Your task to perform on an android device: set an alarm Image 0: 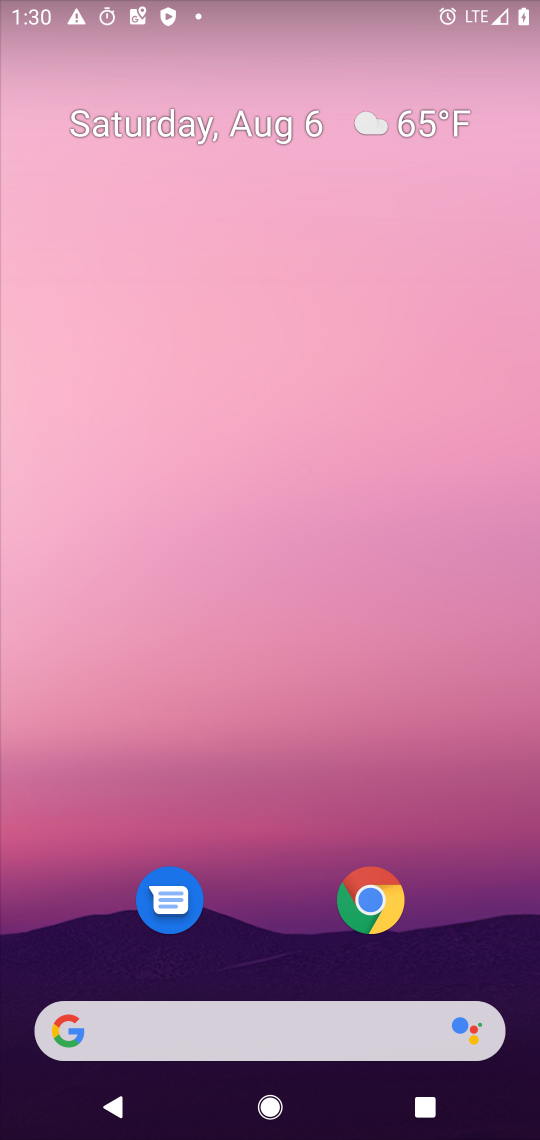
Step 0: drag from (246, 960) to (252, 59)
Your task to perform on an android device: set an alarm Image 1: 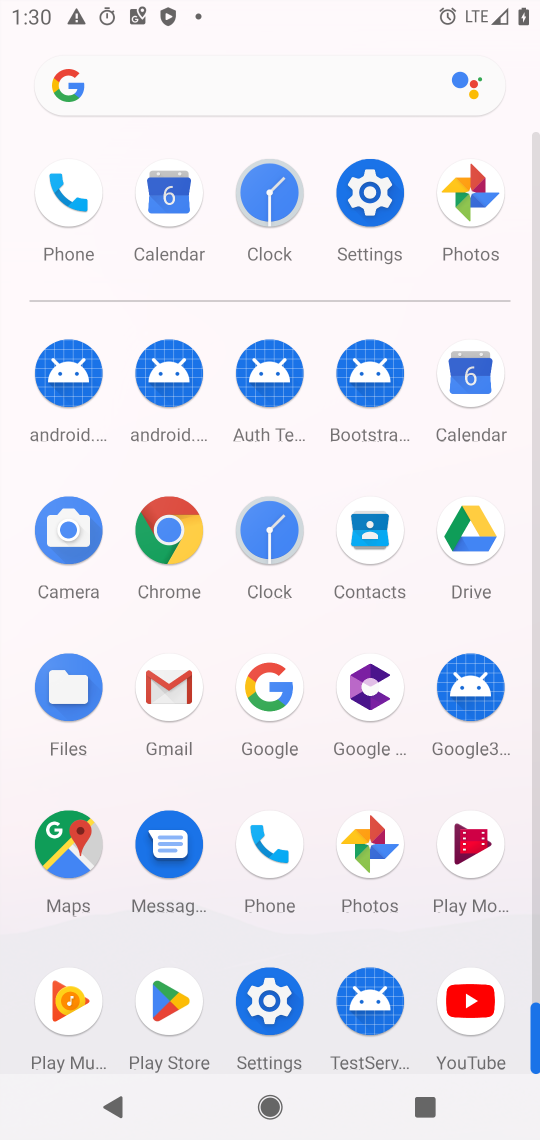
Step 1: click (285, 534)
Your task to perform on an android device: set an alarm Image 2: 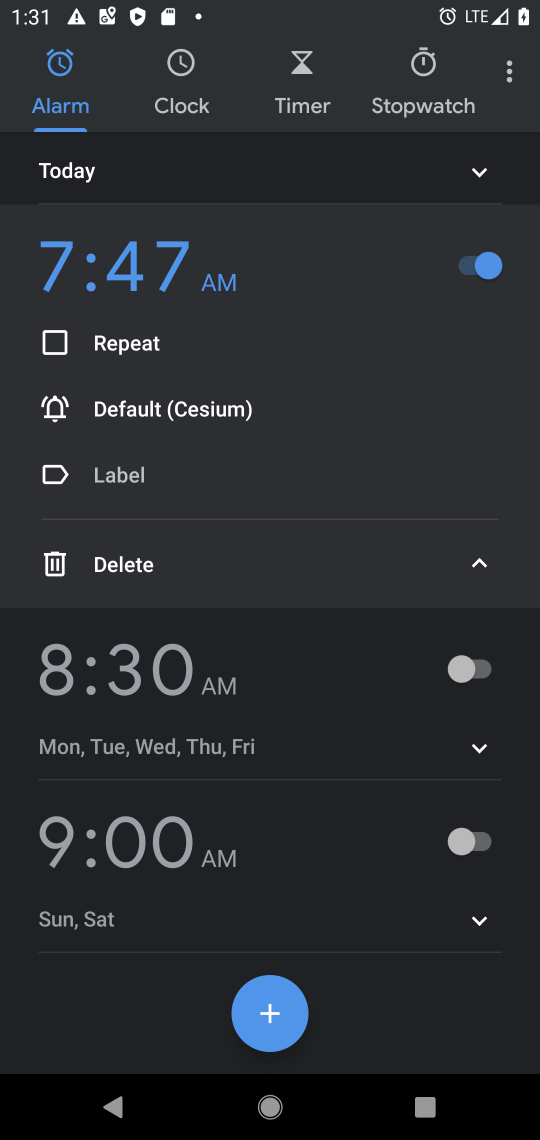
Step 2: click (265, 1009)
Your task to perform on an android device: set an alarm Image 3: 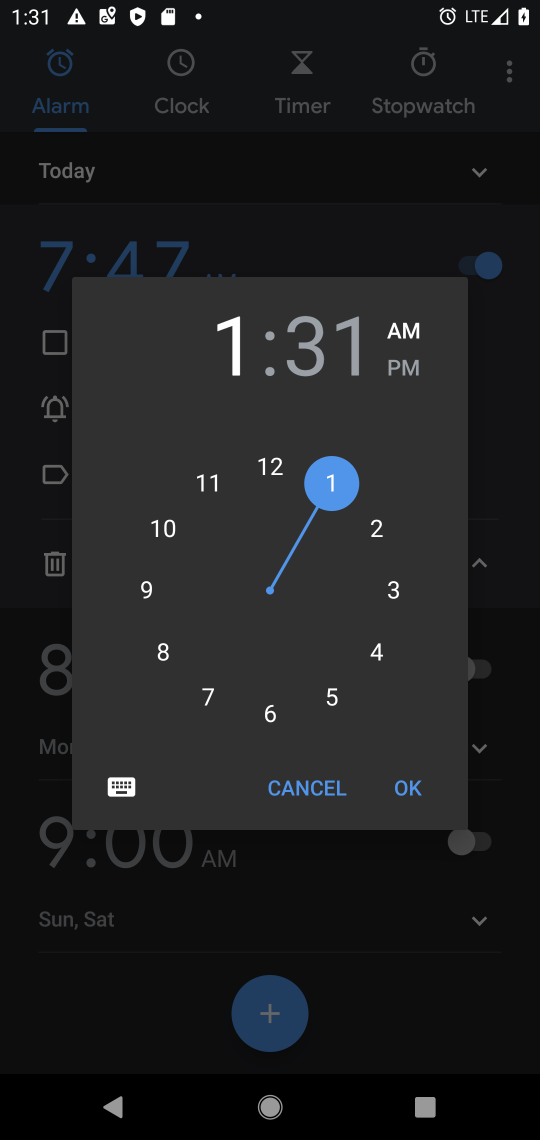
Step 3: click (274, 716)
Your task to perform on an android device: set an alarm Image 4: 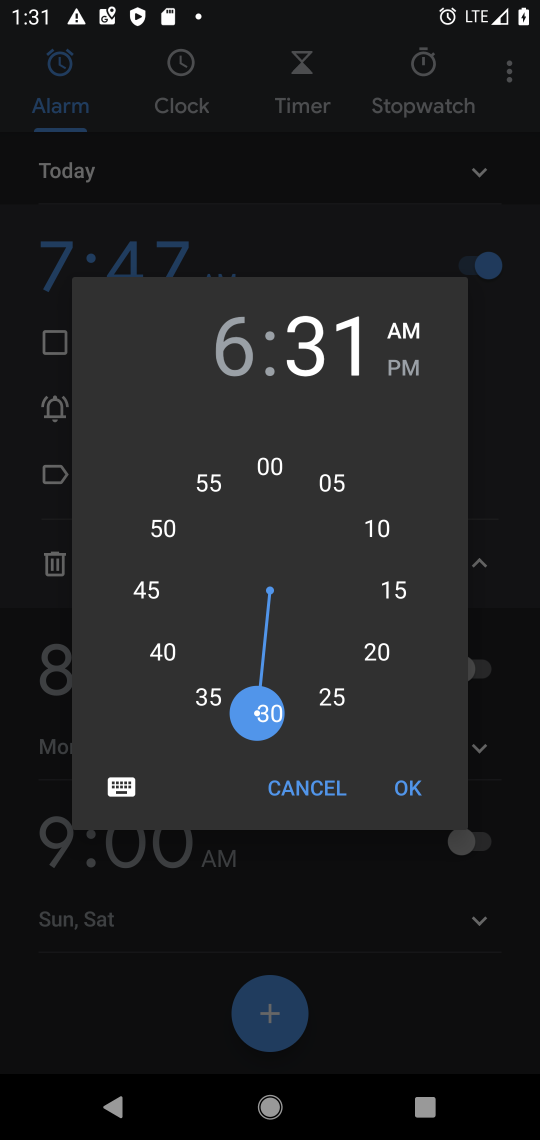
Step 4: click (405, 776)
Your task to perform on an android device: set an alarm Image 5: 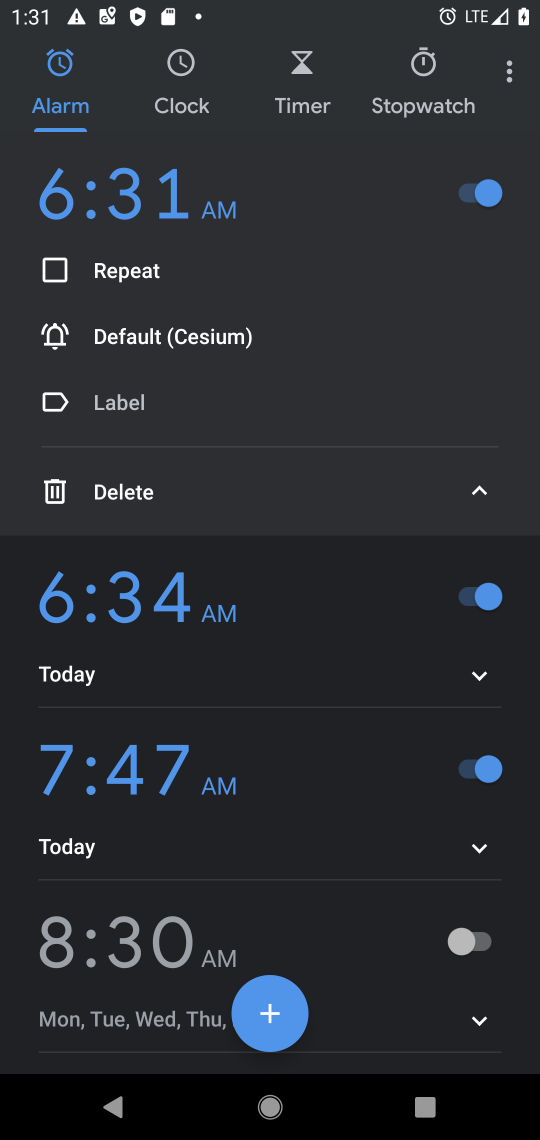
Step 5: task complete